Your task to perform on an android device: Open Yahoo.com Image 0: 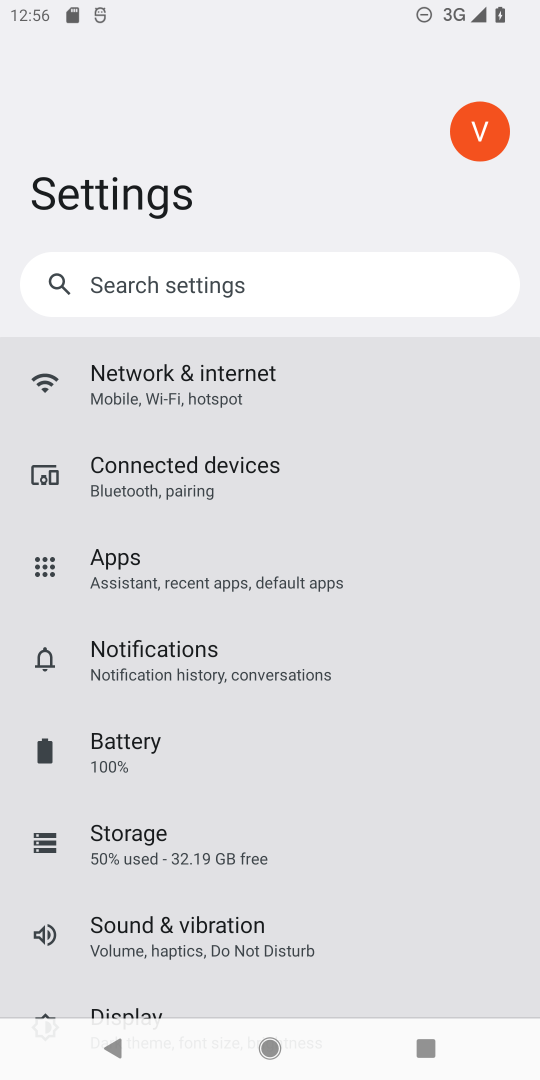
Step 0: press home button
Your task to perform on an android device: Open Yahoo.com Image 1: 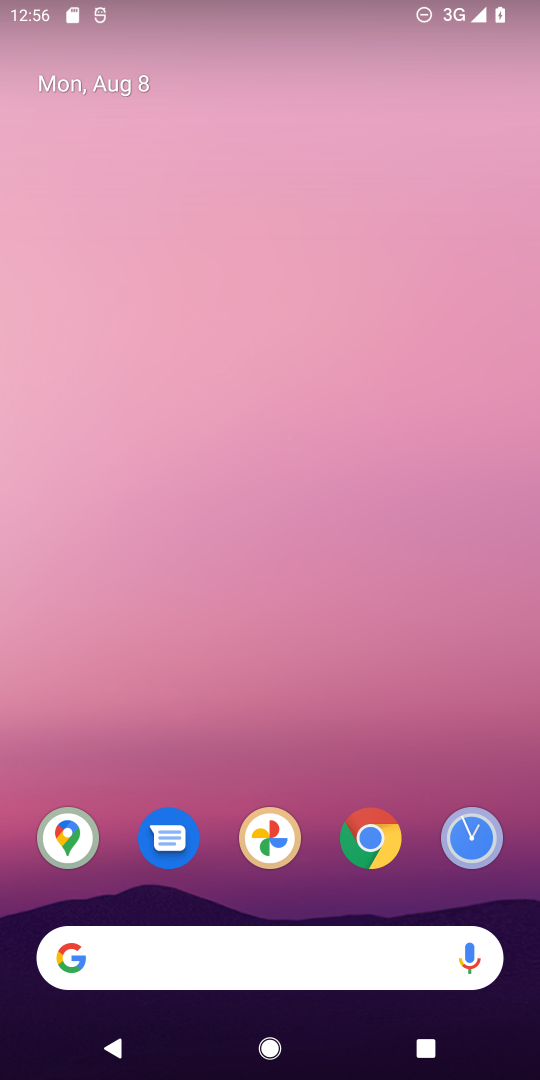
Step 1: click (74, 958)
Your task to perform on an android device: Open Yahoo.com Image 2: 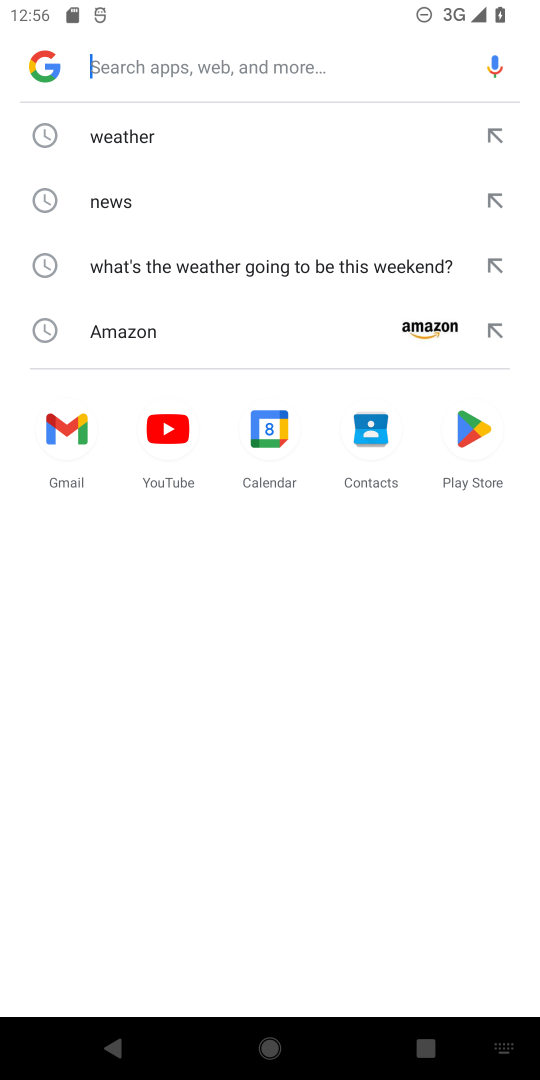
Step 2: type " Yahoo.com"
Your task to perform on an android device: Open Yahoo.com Image 3: 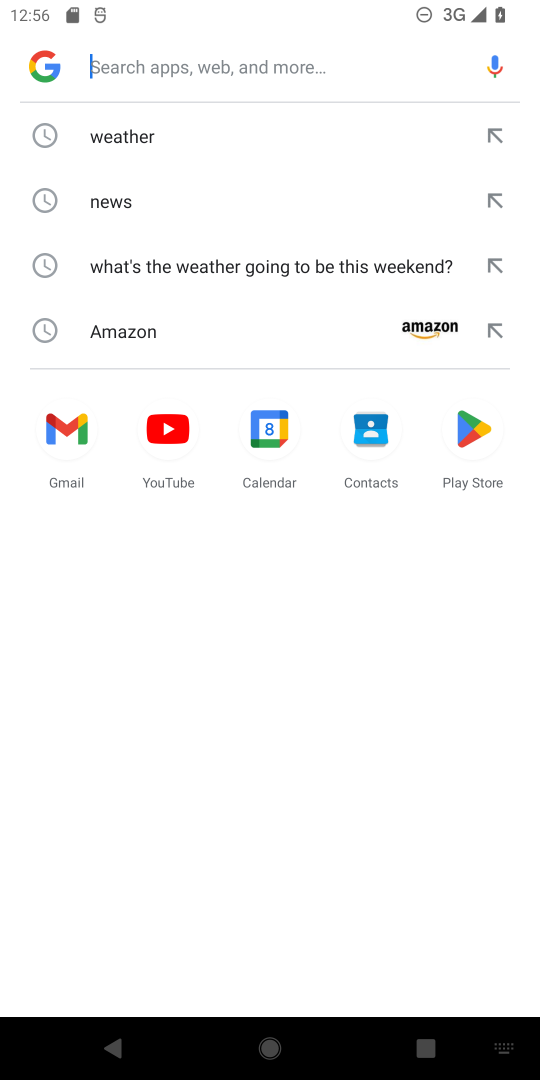
Step 3: click (149, 61)
Your task to perform on an android device: Open Yahoo.com Image 4: 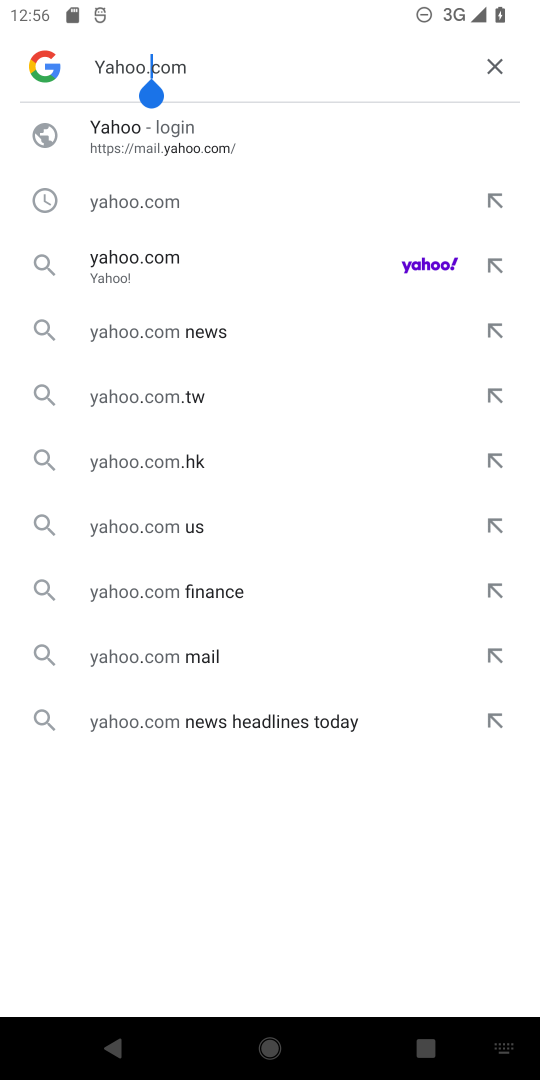
Step 4: click (419, 268)
Your task to perform on an android device: Open Yahoo.com Image 5: 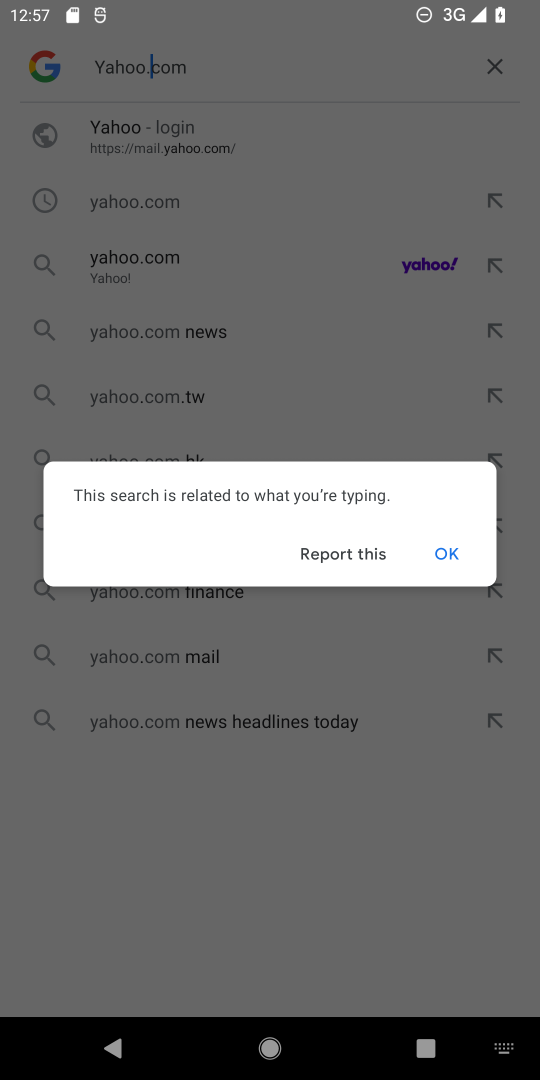
Step 5: click (437, 545)
Your task to perform on an android device: Open Yahoo.com Image 6: 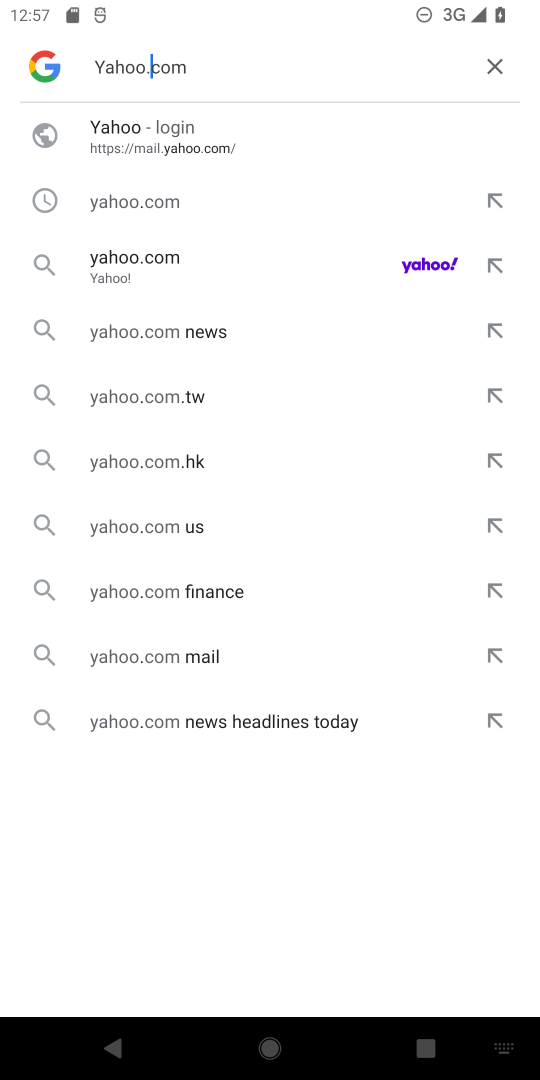
Step 6: click (137, 263)
Your task to perform on an android device: Open Yahoo.com Image 7: 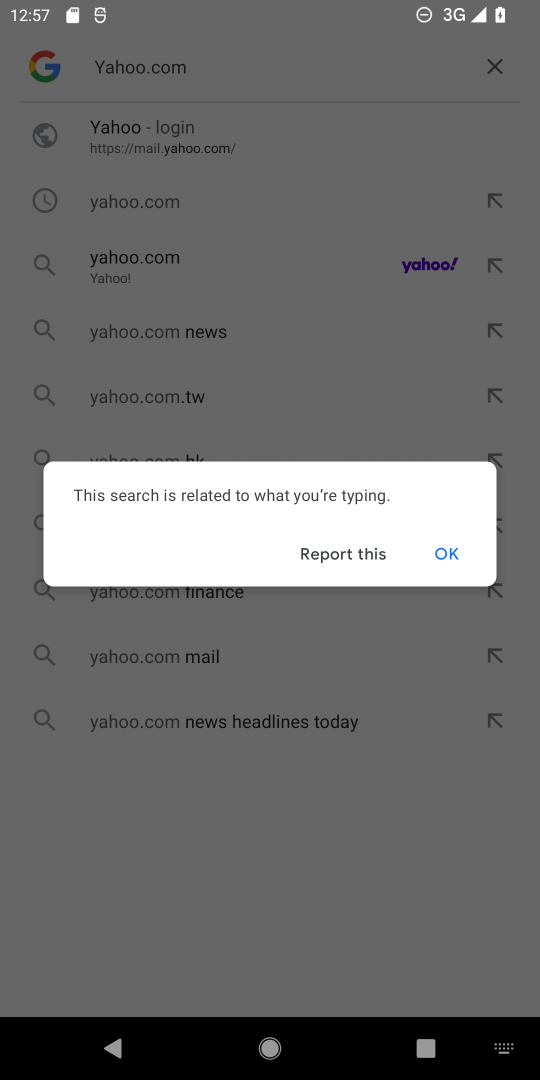
Step 7: click (450, 551)
Your task to perform on an android device: Open Yahoo.com Image 8: 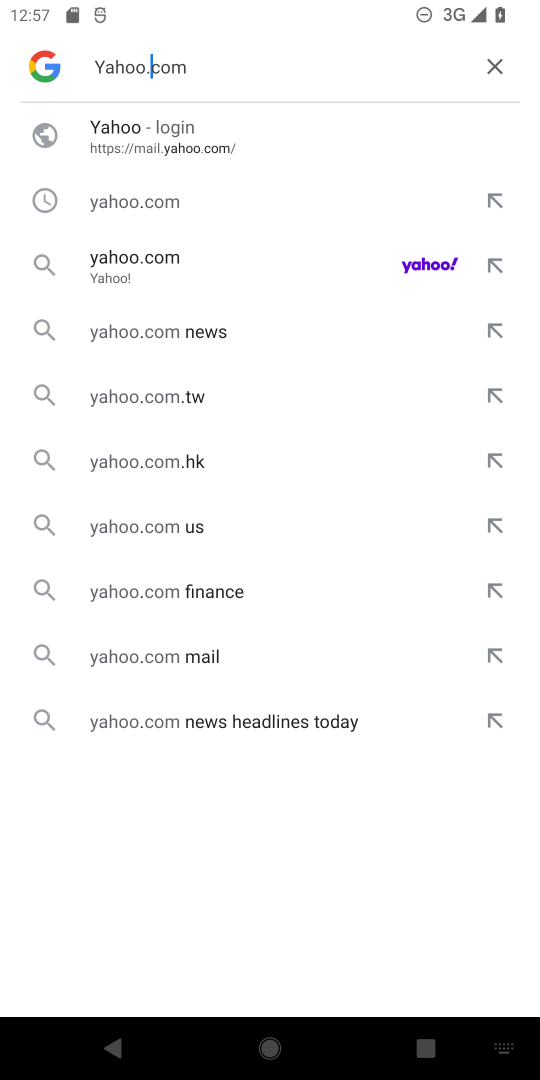
Step 8: click (157, 210)
Your task to perform on an android device: Open Yahoo.com Image 9: 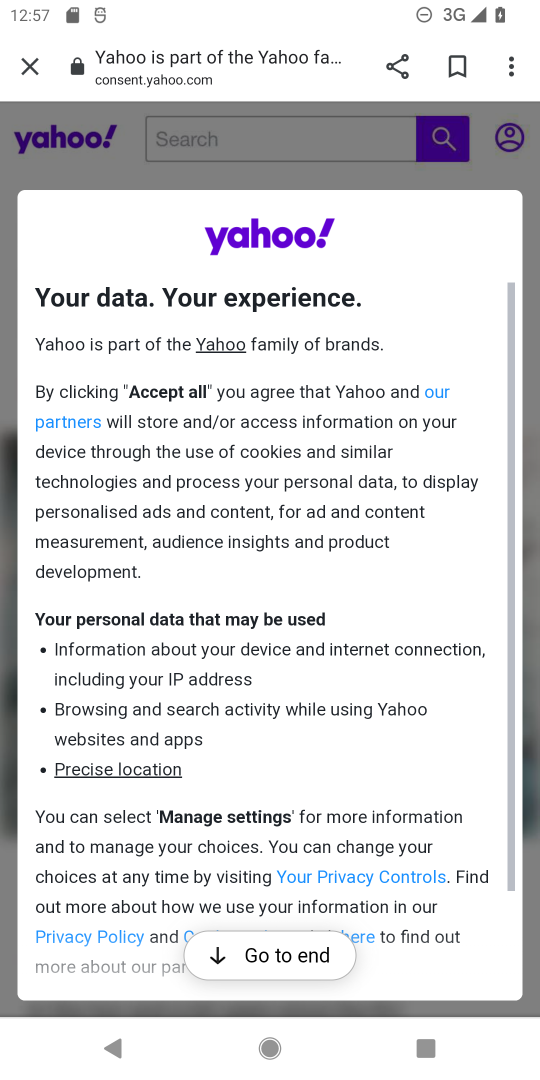
Step 9: click (294, 955)
Your task to perform on an android device: Open Yahoo.com Image 10: 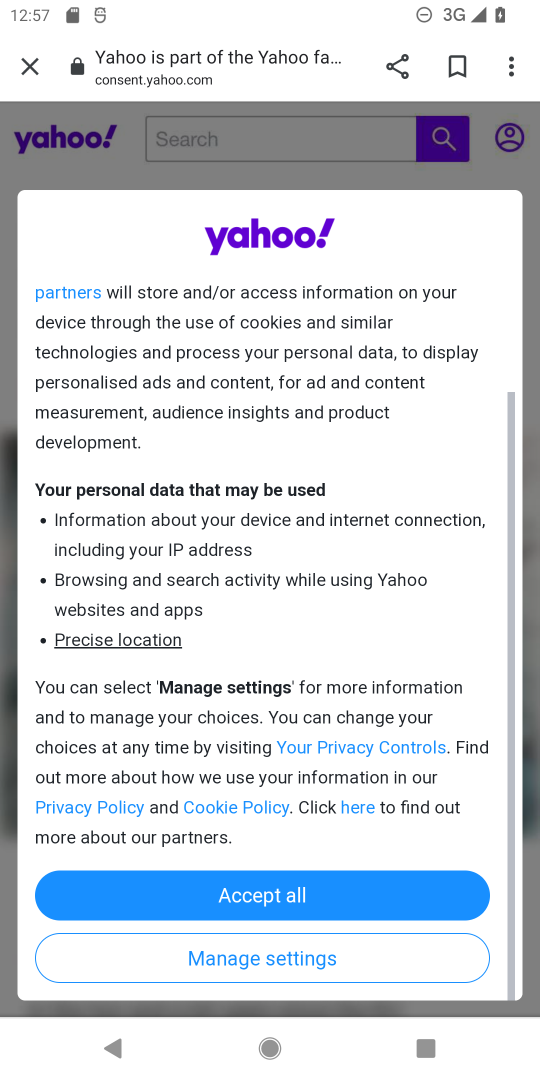
Step 10: click (261, 886)
Your task to perform on an android device: Open Yahoo.com Image 11: 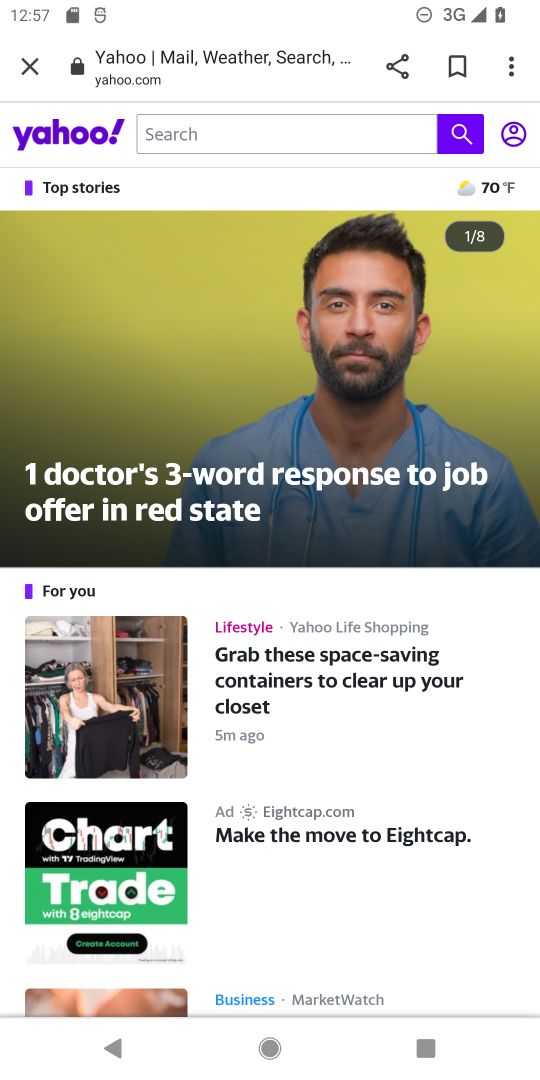
Step 11: task complete